Your task to perform on an android device: Open location settings Image 0: 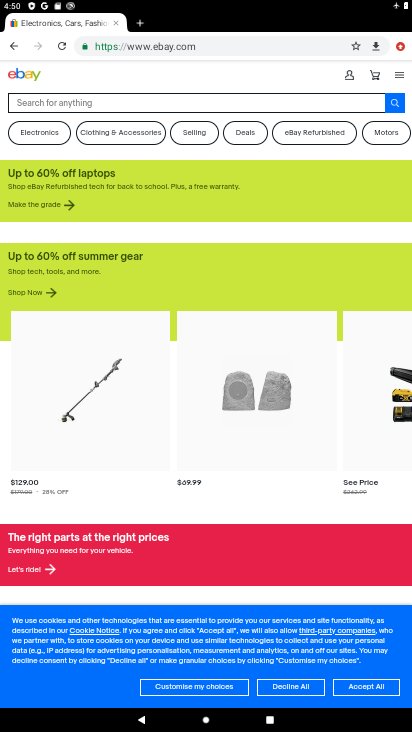
Step 0: press home button
Your task to perform on an android device: Open location settings Image 1: 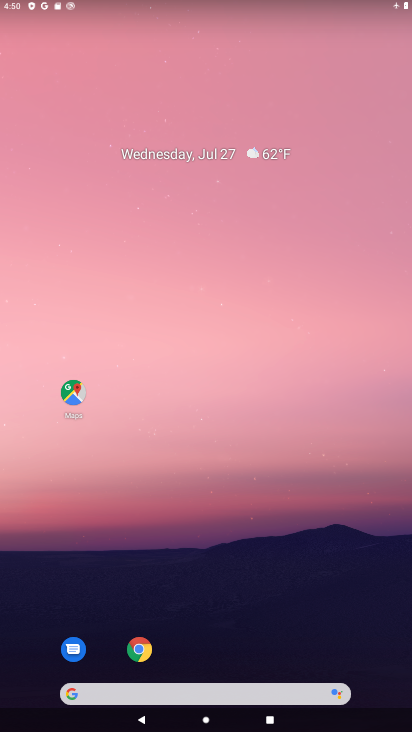
Step 1: drag from (240, 547) to (331, 11)
Your task to perform on an android device: Open location settings Image 2: 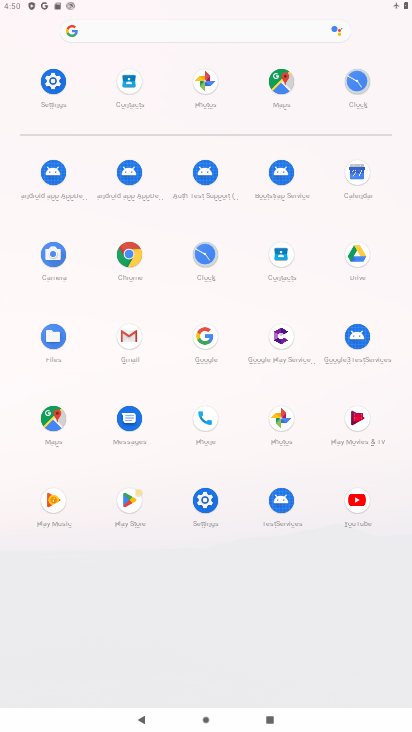
Step 2: click (204, 500)
Your task to perform on an android device: Open location settings Image 3: 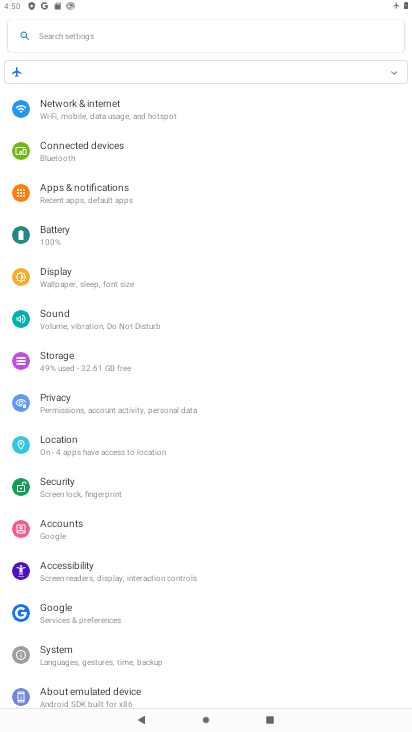
Step 3: click (135, 441)
Your task to perform on an android device: Open location settings Image 4: 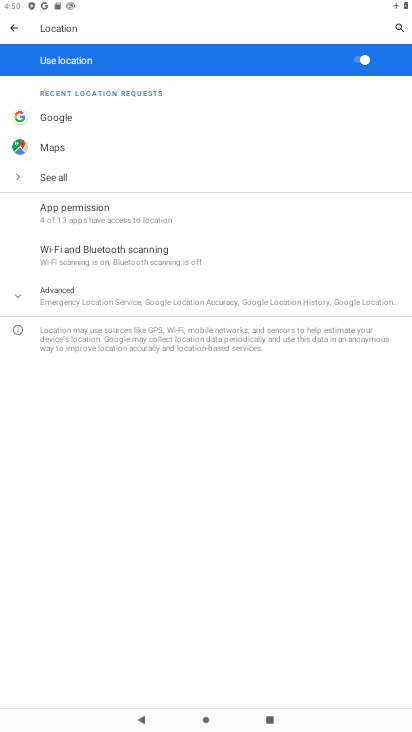
Step 4: task complete